Your task to perform on an android device: toggle airplane mode Image 0: 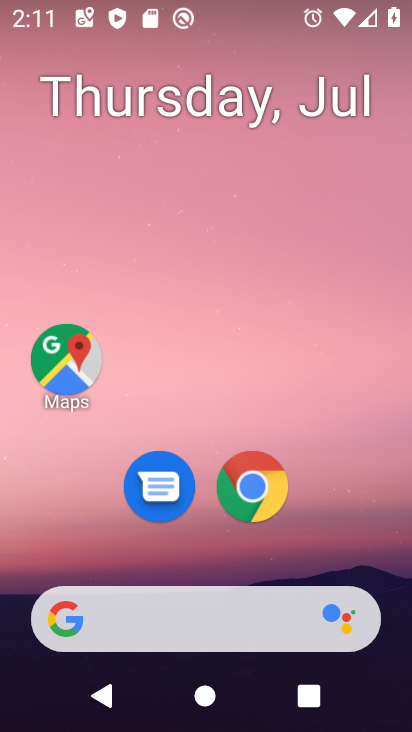
Step 0: drag from (354, 14) to (298, 577)
Your task to perform on an android device: toggle airplane mode Image 1: 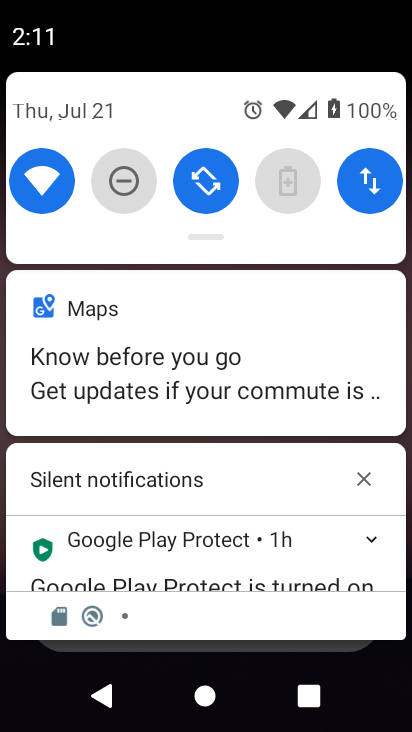
Step 1: drag from (178, 213) to (240, 670)
Your task to perform on an android device: toggle airplane mode Image 2: 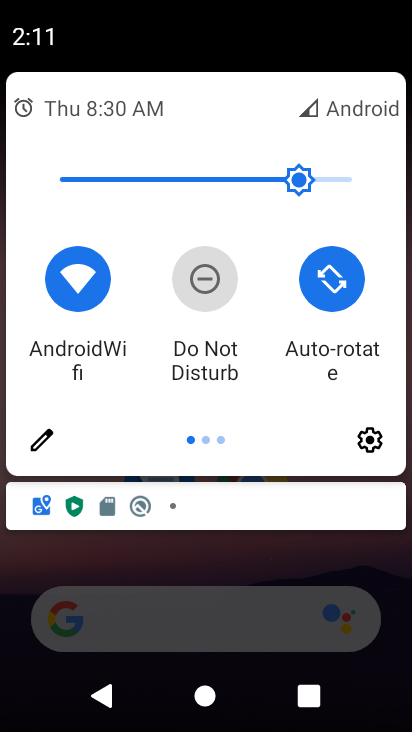
Step 2: drag from (355, 284) to (31, 293)
Your task to perform on an android device: toggle airplane mode Image 3: 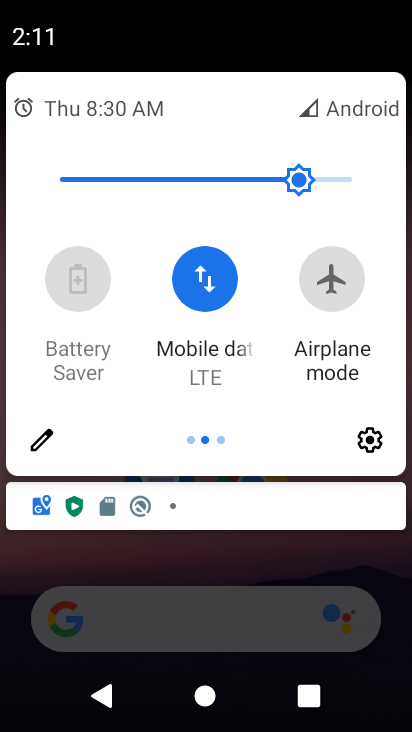
Step 3: click (323, 292)
Your task to perform on an android device: toggle airplane mode Image 4: 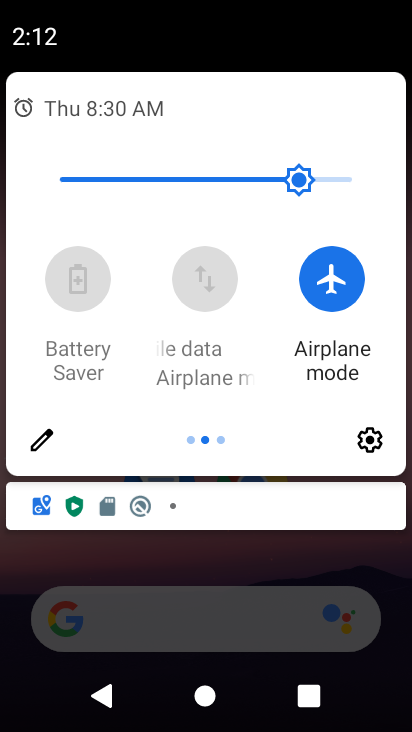
Step 4: task complete